Your task to perform on an android device: turn off notifications in google photos Image 0: 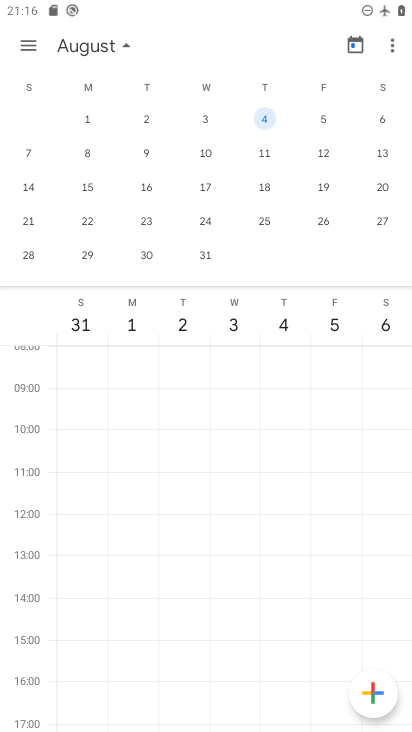
Step 0: press home button
Your task to perform on an android device: turn off notifications in google photos Image 1: 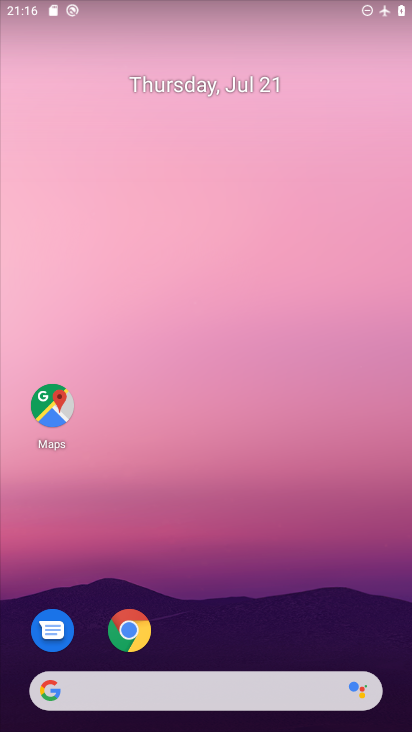
Step 1: drag from (238, 638) to (249, 90)
Your task to perform on an android device: turn off notifications in google photos Image 2: 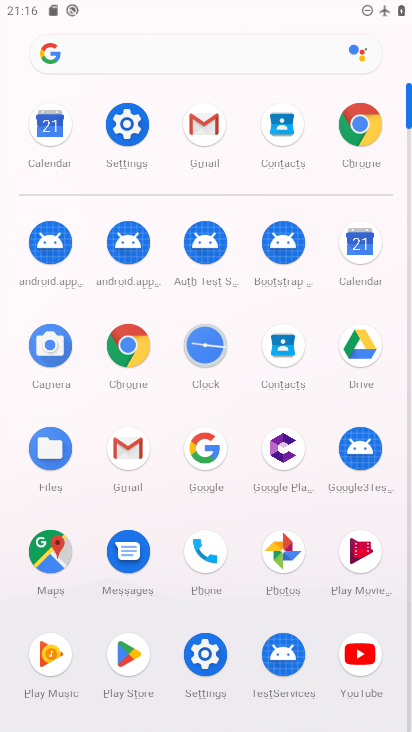
Step 2: click (288, 551)
Your task to perform on an android device: turn off notifications in google photos Image 3: 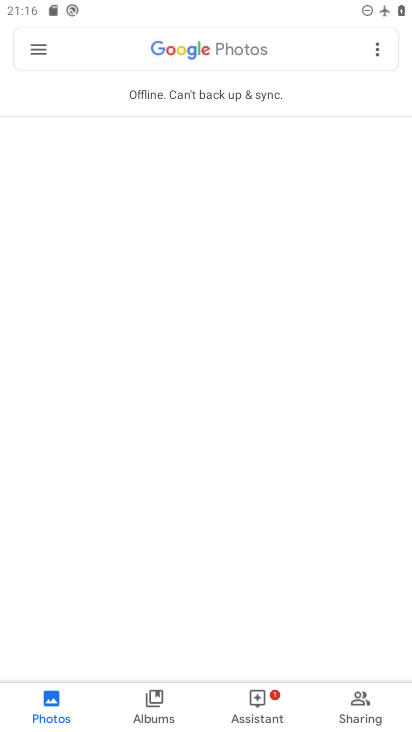
Step 3: click (52, 42)
Your task to perform on an android device: turn off notifications in google photos Image 4: 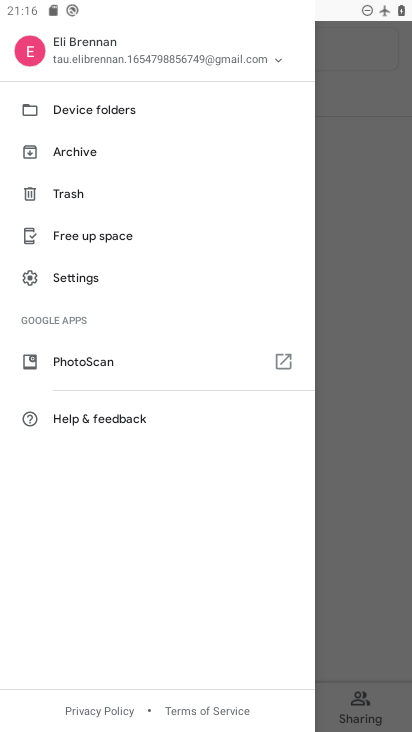
Step 4: click (99, 285)
Your task to perform on an android device: turn off notifications in google photos Image 5: 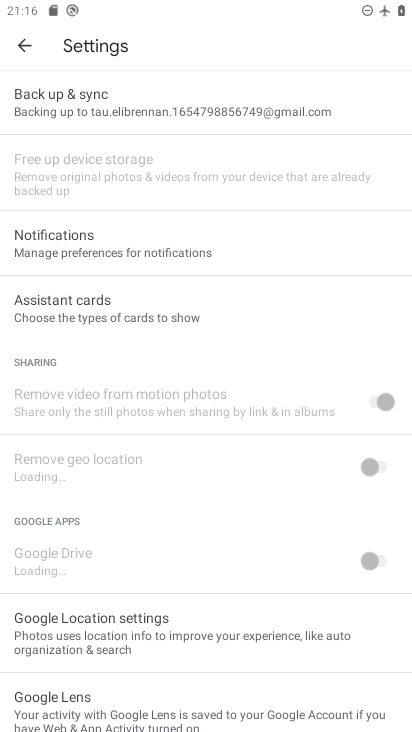
Step 5: click (115, 248)
Your task to perform on an android device: turn off notifications in google photos Image 6: 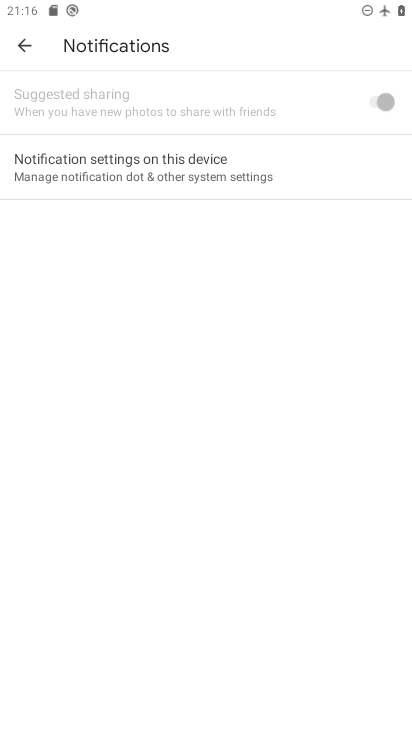
Step 6: task complete